Your task to perform on an android device: Go to internet settings Image 0: 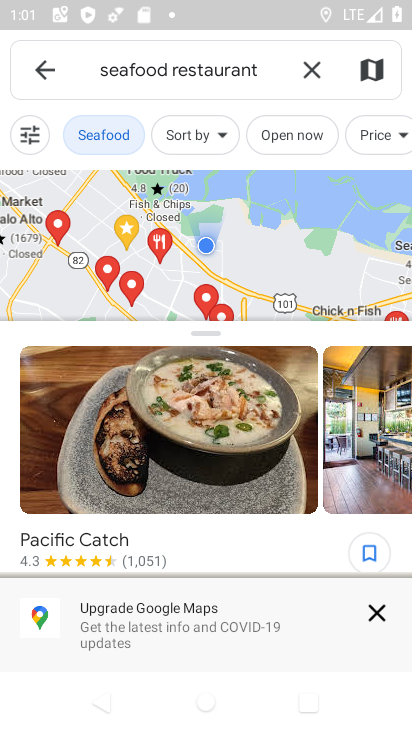
Step 0: press home button
Your task to perform on an android device: Go to internet settings Image 1: 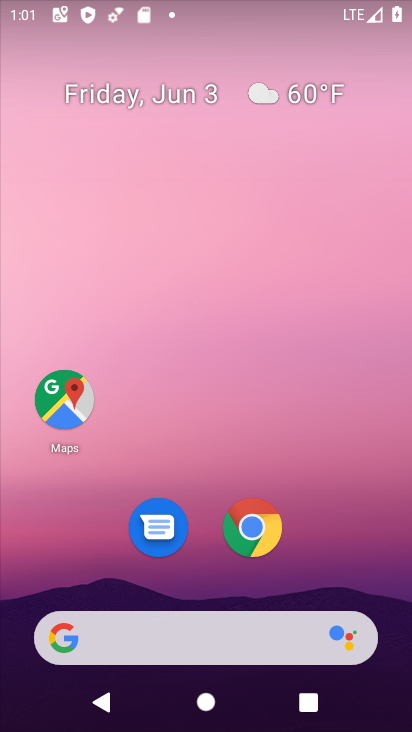
Step 1: drag from (214, 564) to (235, 15)
Your task to perform on an android device: Go to internet settings Image 2: 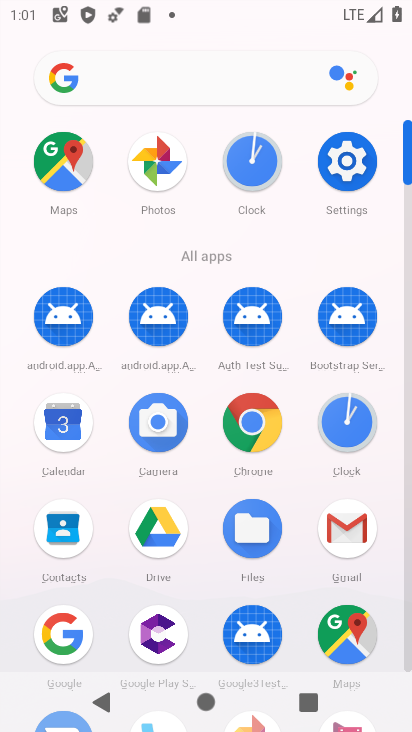
Step 2: click (344, 164)
Your task to perform on an android device: Go to internet settings Image 3: 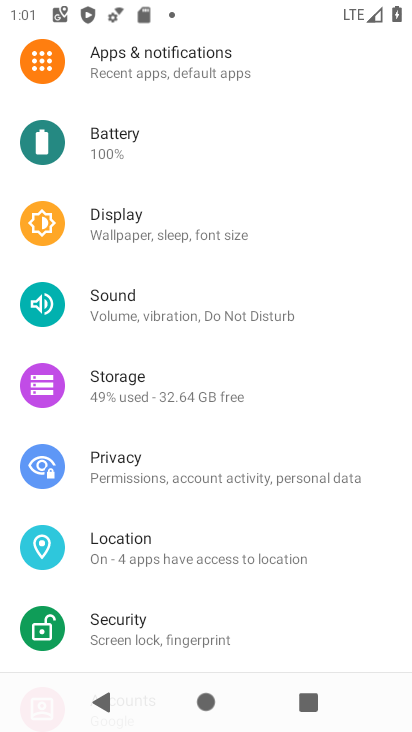
Step 3: drag from (201, 193) to (210, 673)
Your task to perform on an android device: Go to internet settings Image 4: 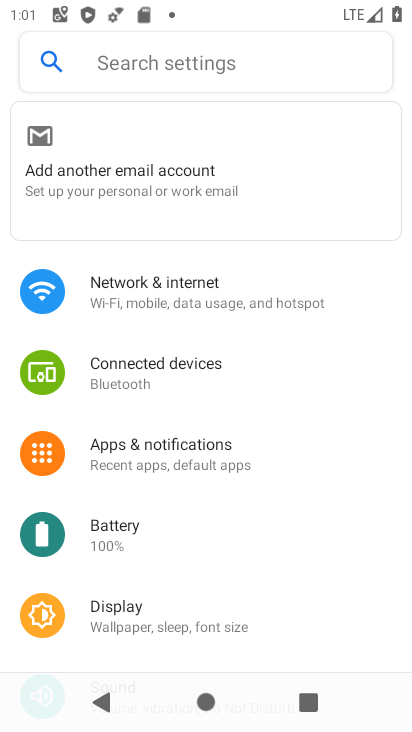
Step 4: click (212, 303)
Your task to perform on an android device: Go to internet settings Image 5: 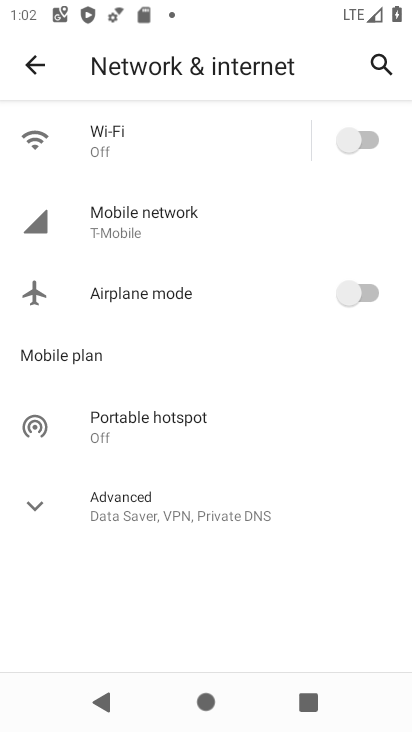
Step 5: click (151, 208)
Your task to perform on an android device: Go to internet settings Image 6: 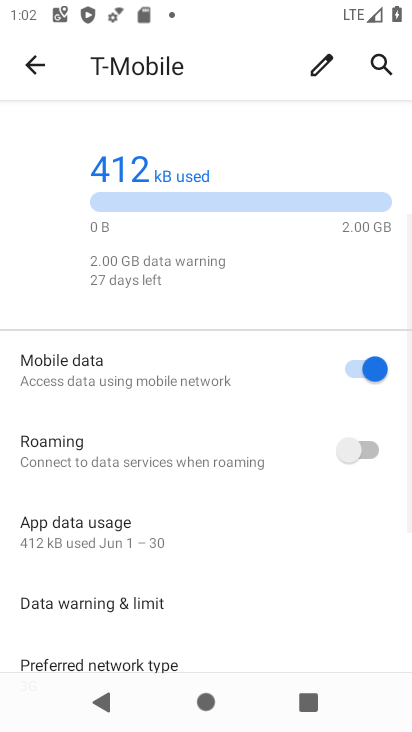
Step 6: task complete